Your task to perform on an android device: Open the map Image 0: 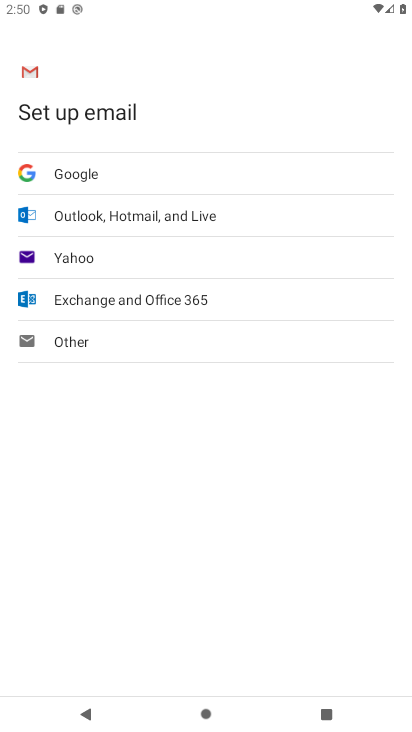
Step 0: press home button
Your task to perform on an android device: Open the map Image 1: 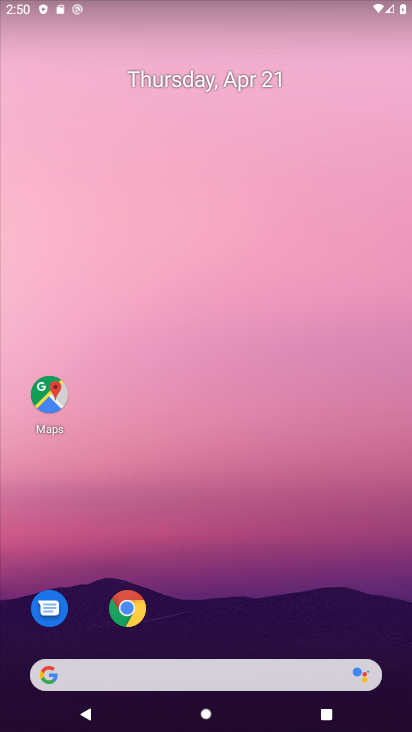
Step 1: drag from (262, 645) to (306, 58)
Your task to perform on an android device: Open the map Image 2: 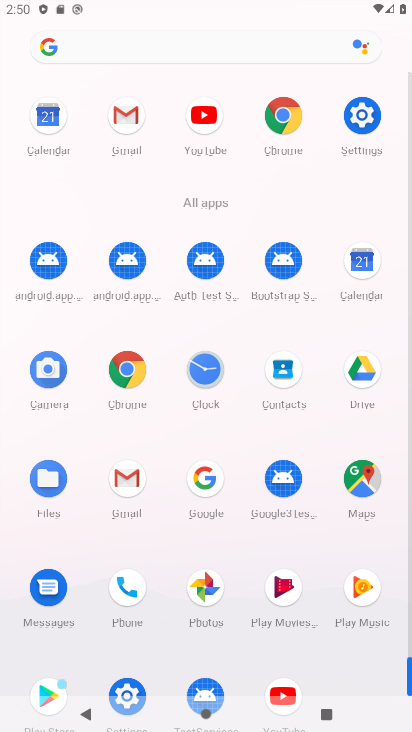
Step 2: click (362, 484)
Your task to perform on an android device: Open the map Image 3: 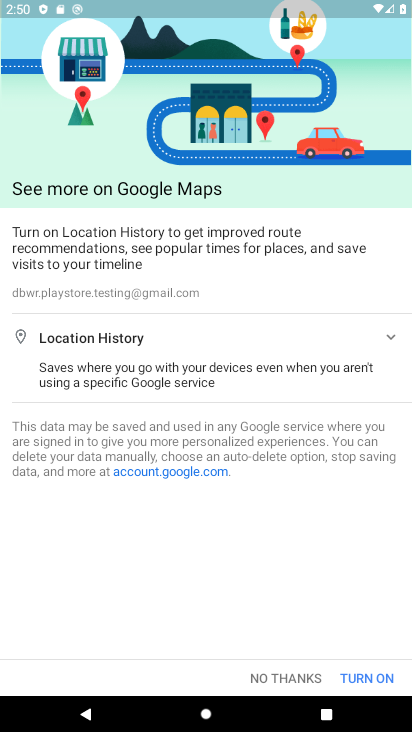
Step 3: click (262, 679)
Your task to perform on an android device: Open the map Image 4: 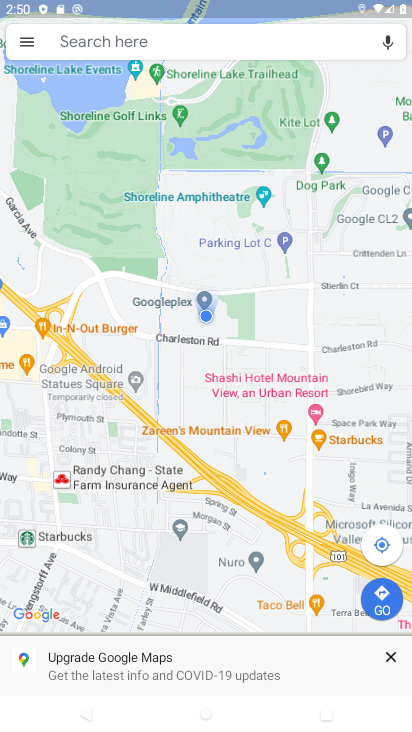
Step 4: task complete